Your task to perform on an android device: turn on showing notifications on the lock screen Image 0: 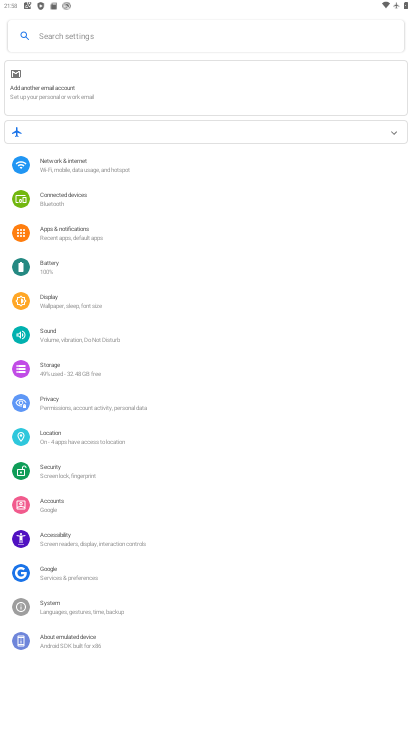
Step 0: click (76, 242)
Your task to perform on an android device: turn on showing notifications on the lock screen Image 1: 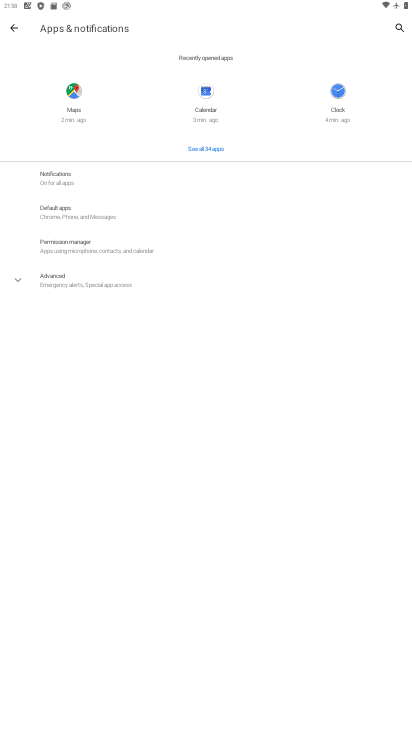
Step 1: click (150, 183)
Your task to perform on an android device: turn on showing notifications on the lock screen Image 2: 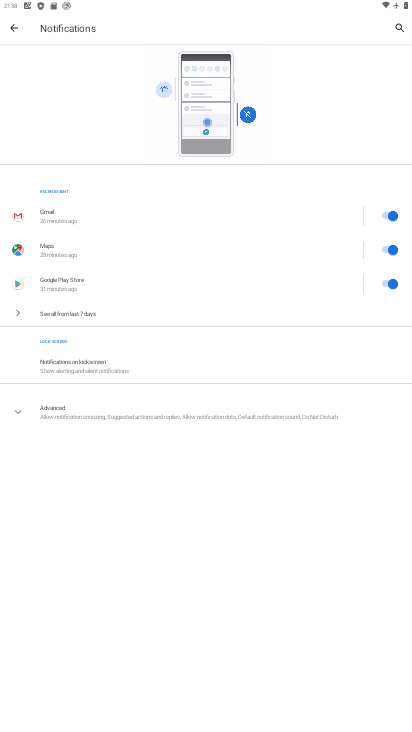
Step 2: click (67, 358)
Your task to perform on an android device: turn on showing notifications on the lock screen Image 3: 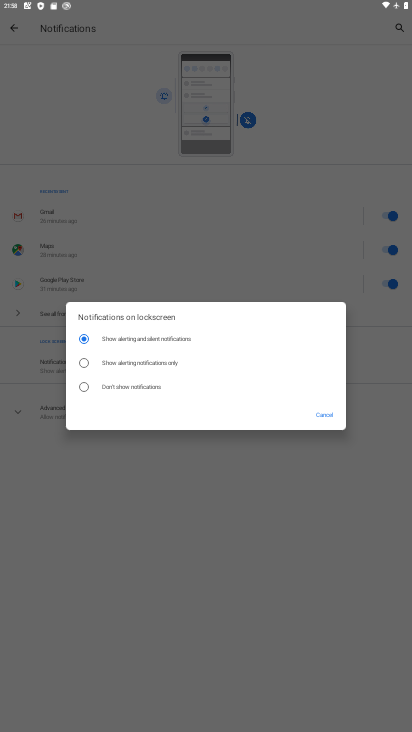
Step 3: task complete